Your task to perform on an android device: Check the weather Image 0: 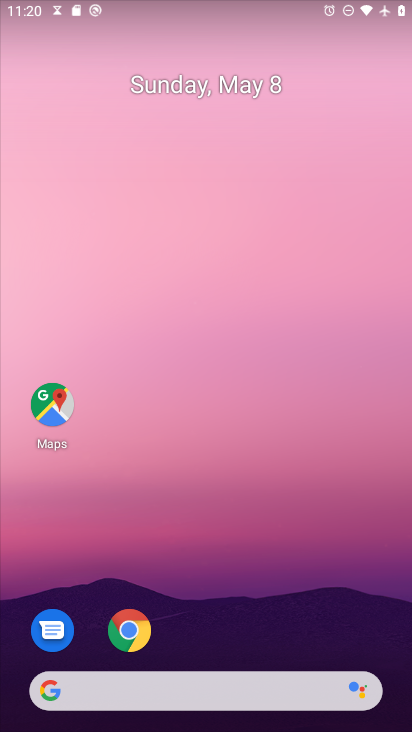
Step 0: click (44, 694)
Your task to perform on an android device: Check the weather Image 1: 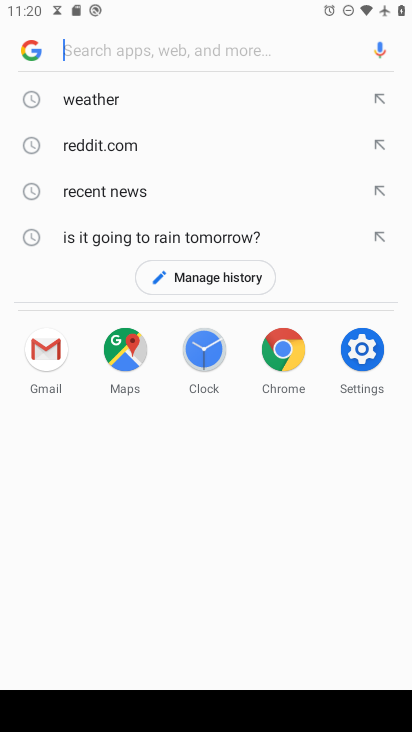
Step 1: click (120, 96)
Your task to perform on an android device: Check the weather Image 2: 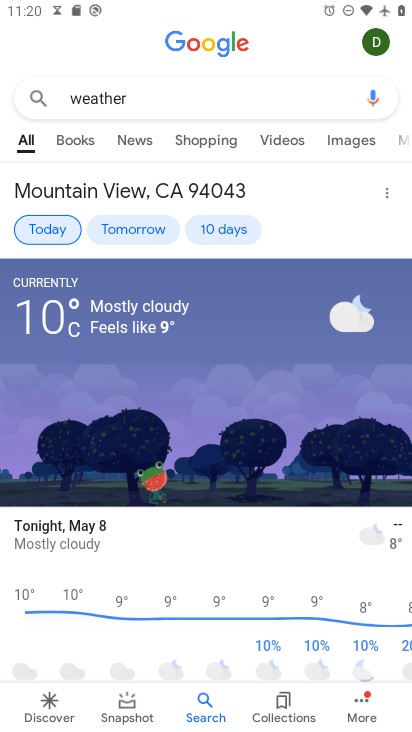
Step 2: task complete